Your task to perform on an android device: Go to eBay Image 0: 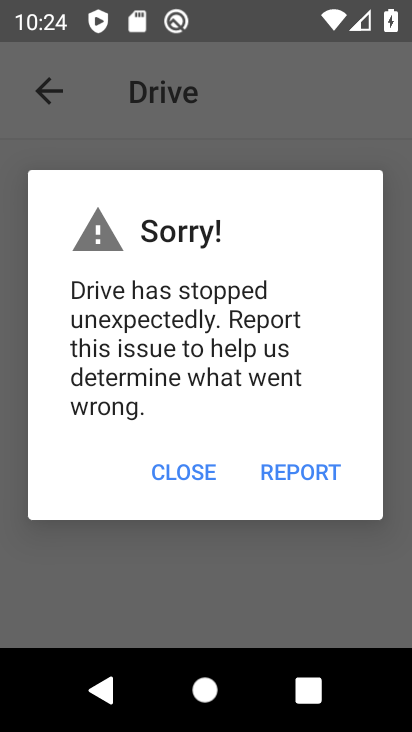
Step 0: press home button
Your task to perform on an android device: Go to eBay Image 1: 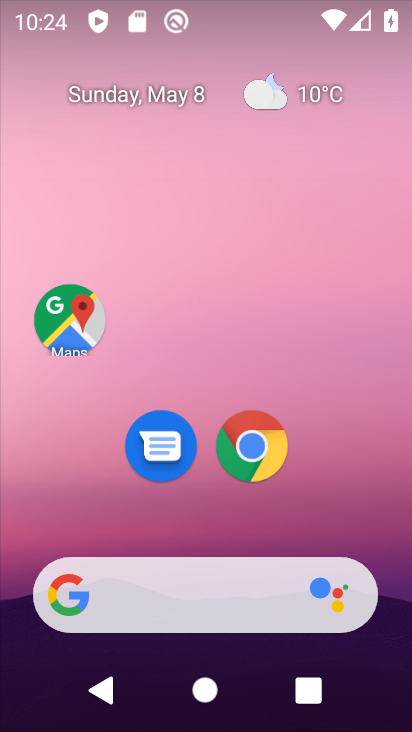
Step 1: click (249, 447)
Your task to perform on an android device: Go to eBay Image 2: 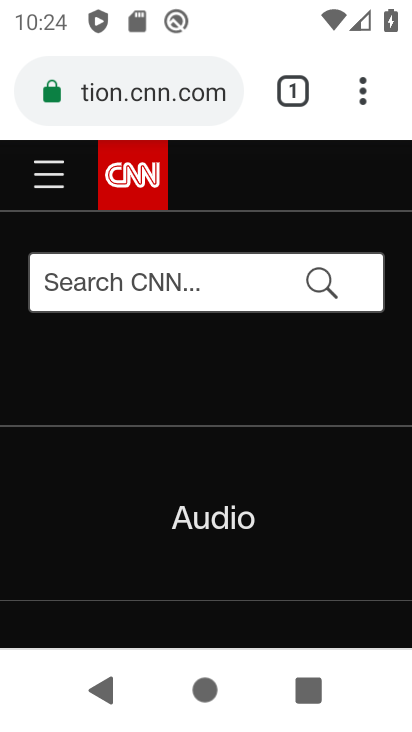
Step 2: click (157, 94)
Your task to perform on an android device: Go to eBay Image 3: 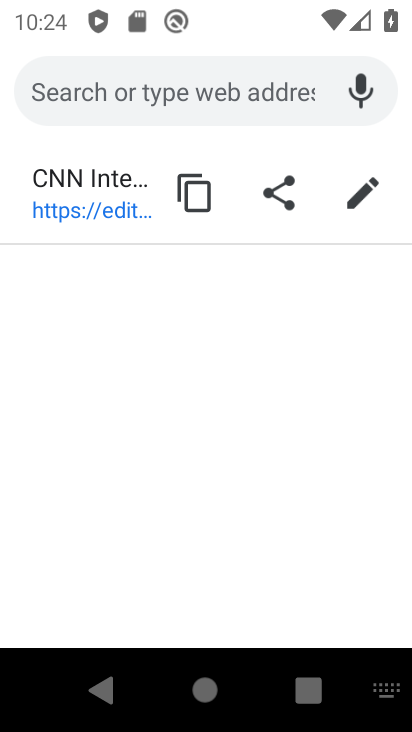
Step 3: type "ebay"
Your task to perform on an android device: Go to eBay Image 4: 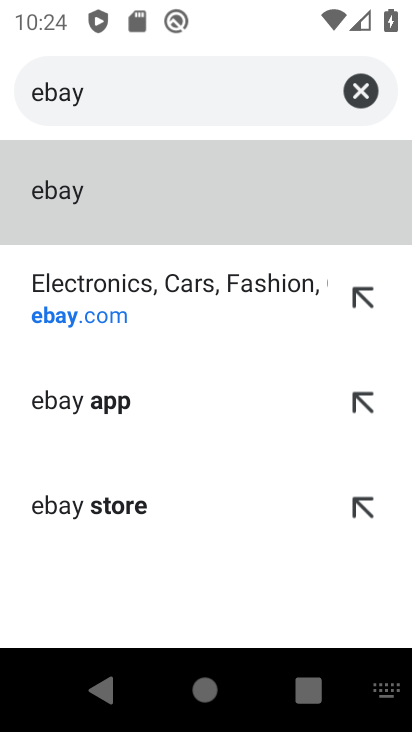
Step 4: click (51, 195)
Your task to perform on an android device: Go to eBay Image 5: 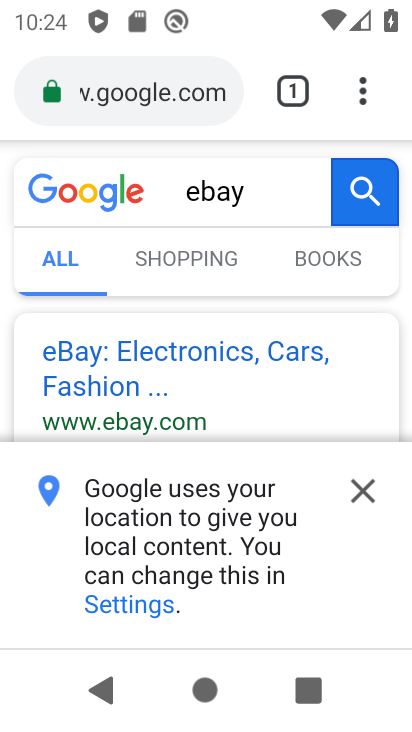
Step 5: click (88, 360)
Your task to perform on an android device: Go to eBay Image 6: 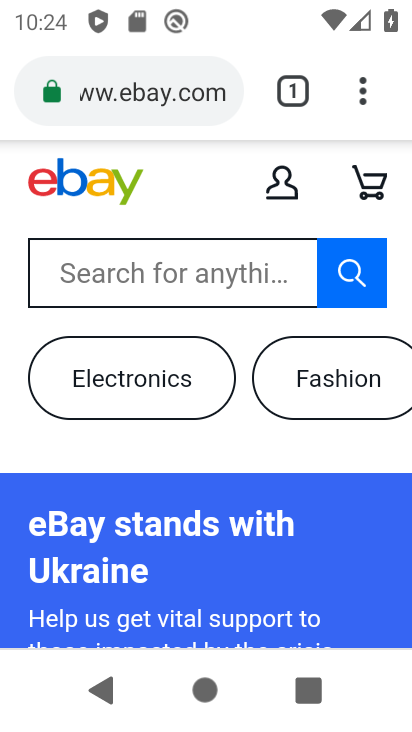
Step 6: task complete